Your task to perform on an android device: Add "razer huntsman" to the cart on target Image 0: 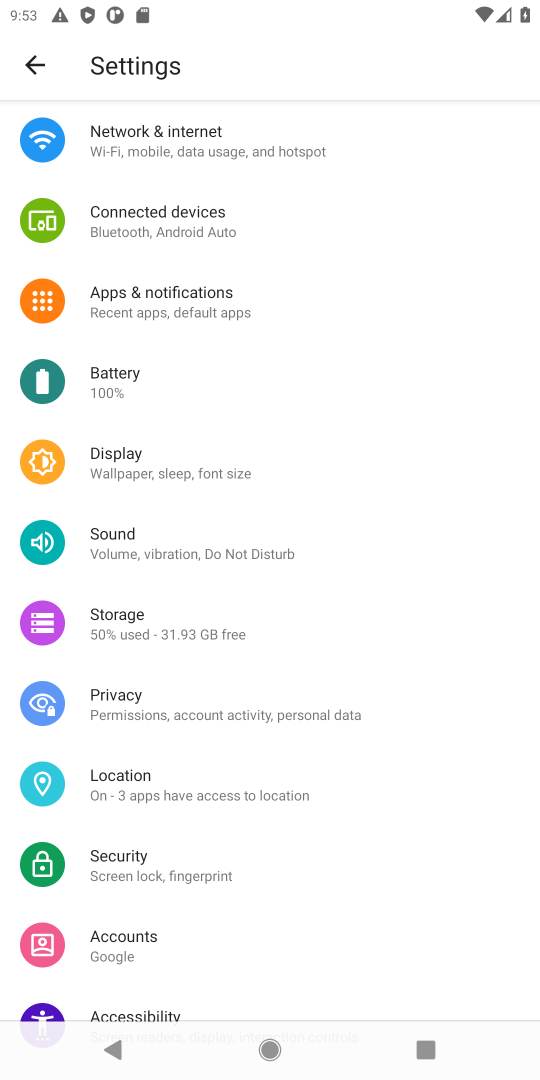
Step 0: press home button
Your task to perform on an android device: Add "razer huntsman" to the cart on target Image 1: 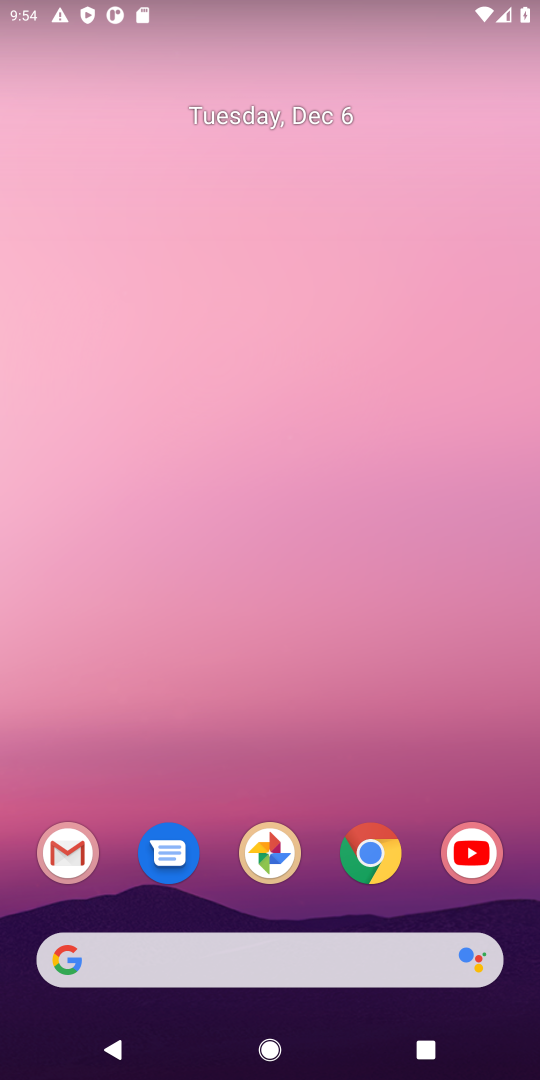
Step 1: click (374, 851)
Your task to perform on an android device: Add "razer huntsman" to the cart on target Image 2: 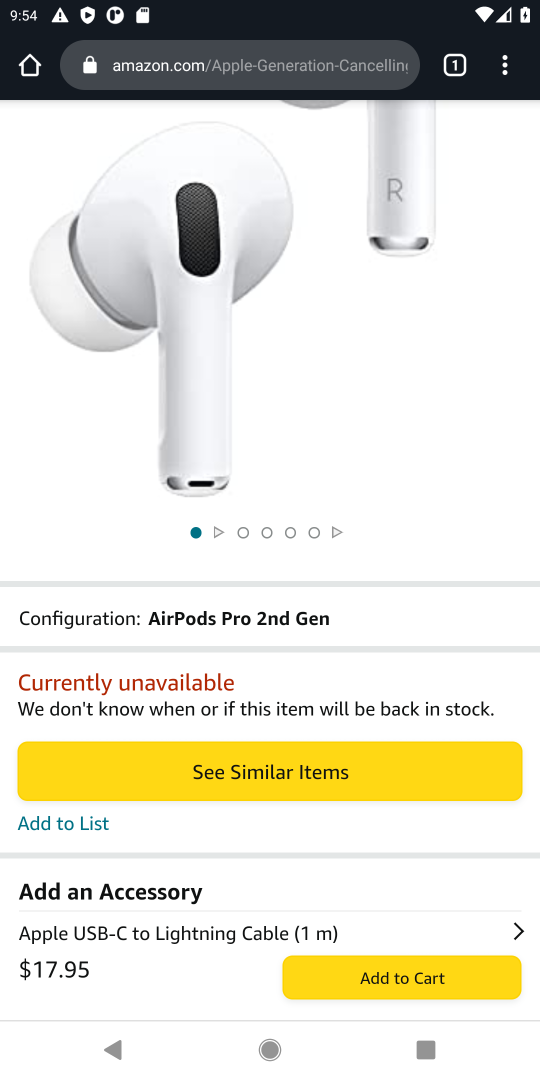
Step 2: task complete